Your task to perform on an android device: See recent photos Image 0: 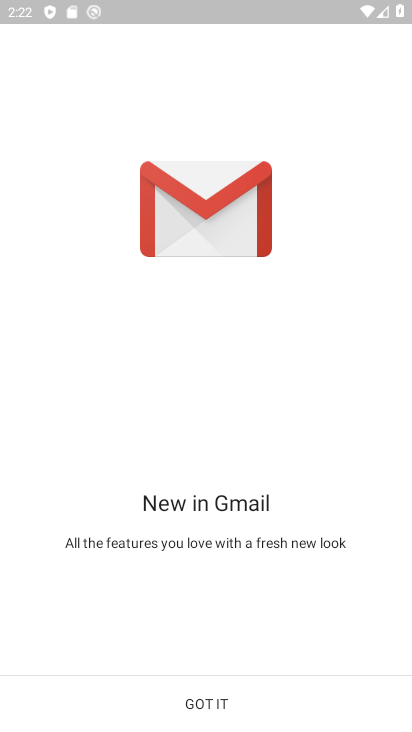
Step 0: click (263, 730)
Your task to perform on an android device: See recent photos Image 1: 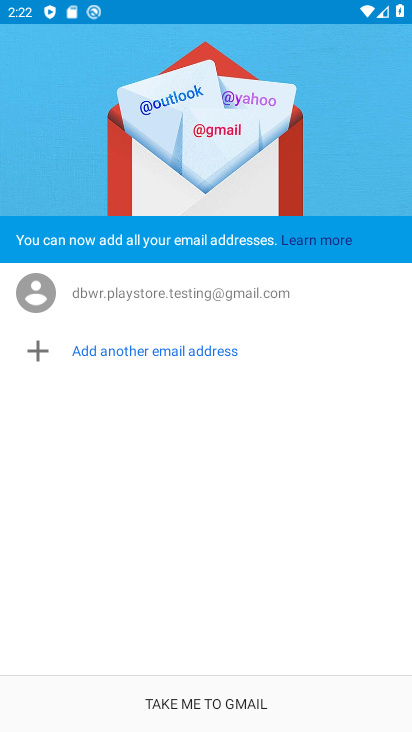
Step 1: click (232, 705)
Your task to perform on an android device: See recent photos Image 2: 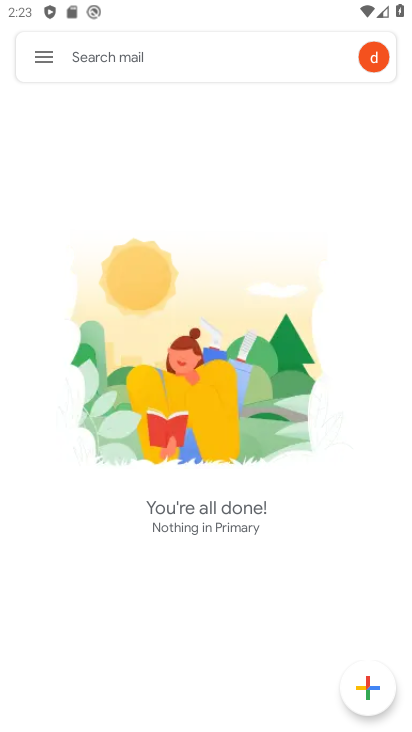
Step 2: press home button
Your task to perform on an android device: See recent photos Image 3: 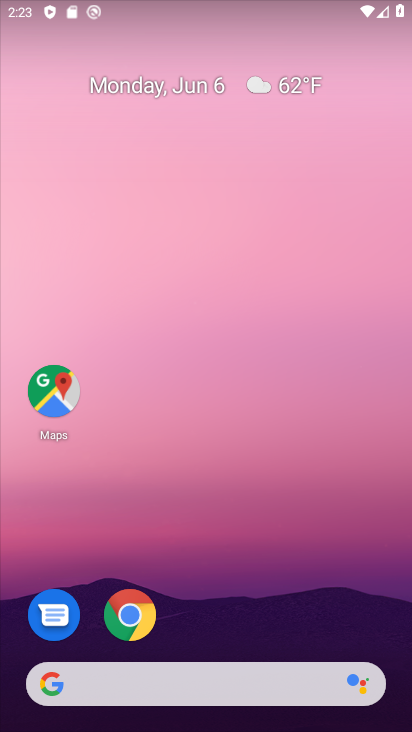
Step 3: drag from (200, 686) to (257, 8)
Your task to perform on an android device: See recent photos Image 4: 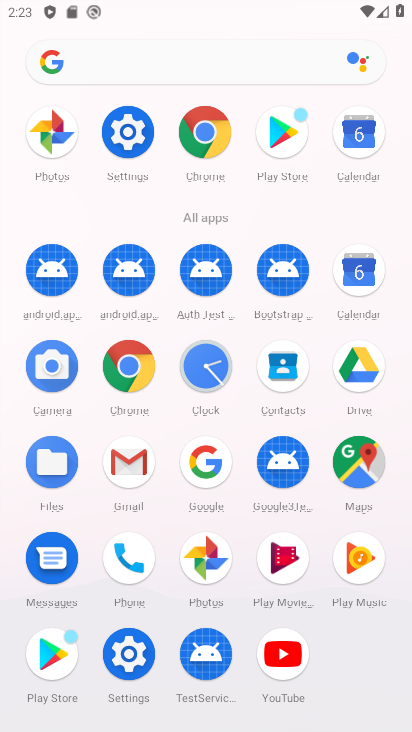
Step 4: click (182, 551)
Your task to perform on an android device: See recent photos Image 5: 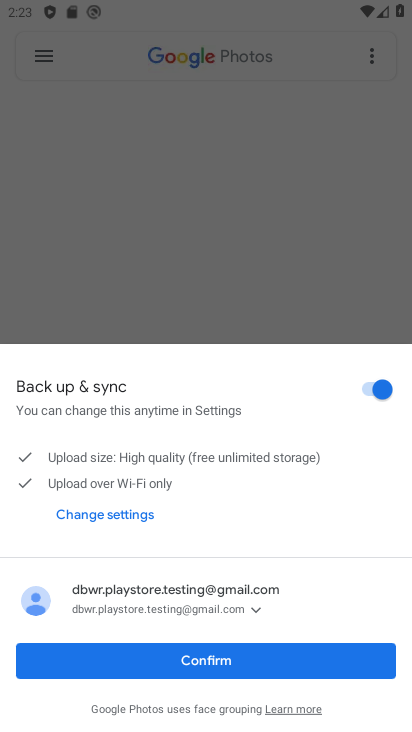
Step 5: click (200, 666)
Your task to perform on an android device: See recent photos Image 6: 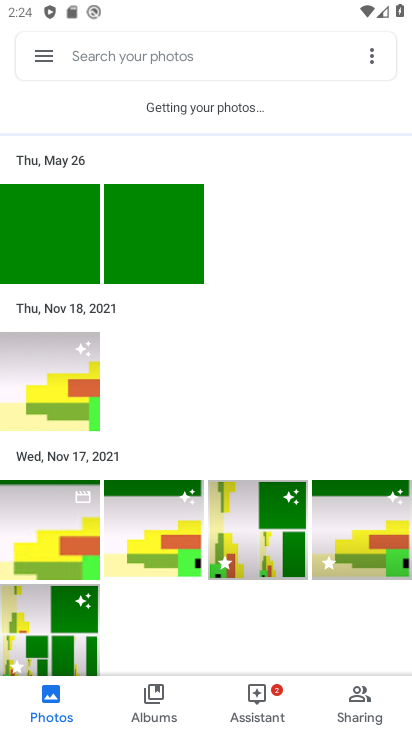
Step 6: task complete